Your task to perform on an android device: turn off notifications in google photos Image 0: 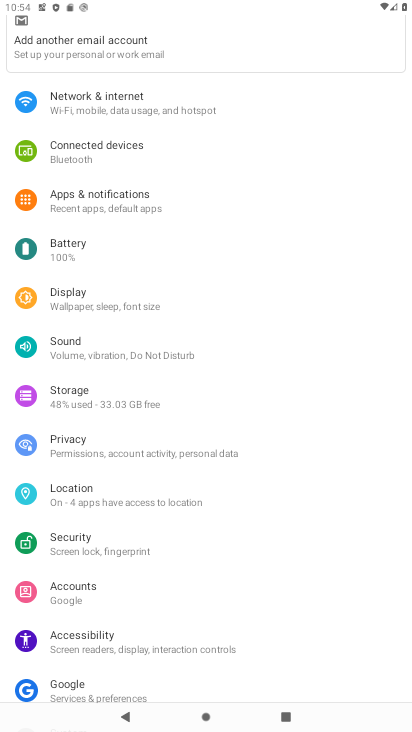
Step 0: press home button
Your task to perform on an android device: turn off notifications in google photos Image 1: 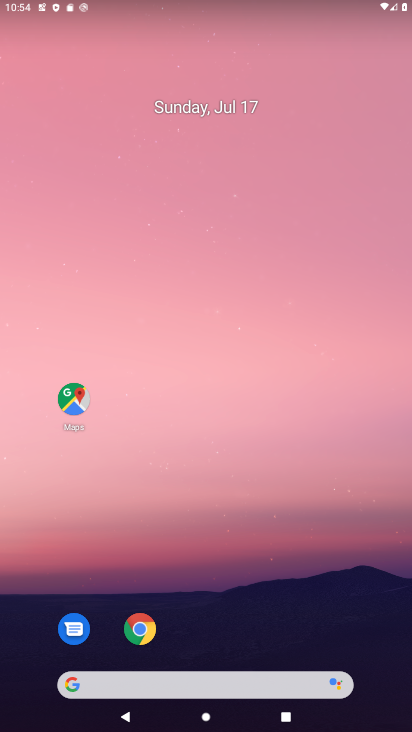
Step 1: drag from (258, 578) to (224, 61)
Your task to perform on an android device: turn off notifications in google photos Image 2: 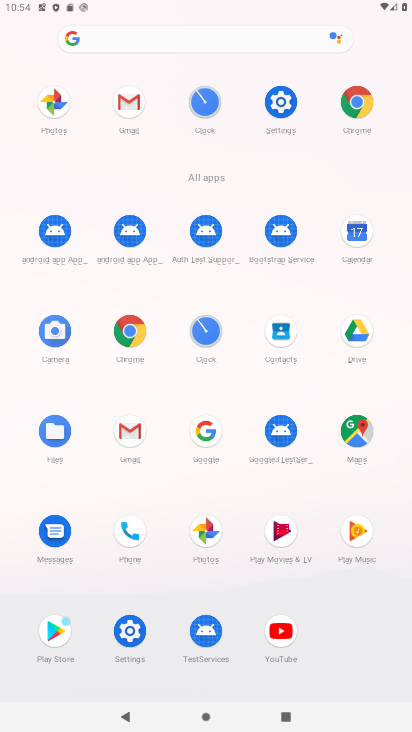
Step 2: click (208, 529)
Your task to perform on an android device: turn off notifications in google photos Image 3: 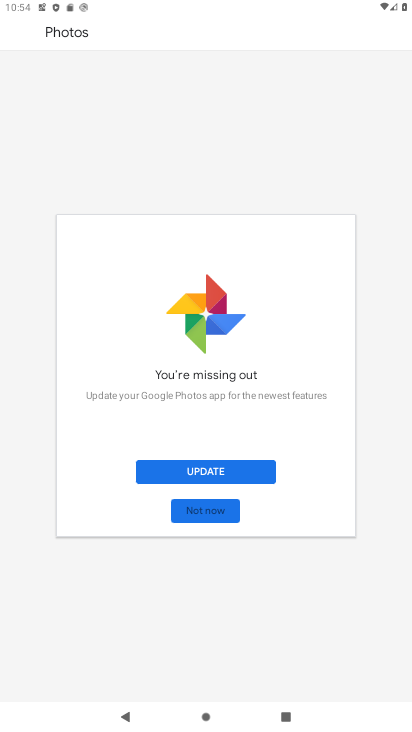
Step 3: click (242, 474)
Your task to perform on an android device: turn off notifications in google photos Image 4: 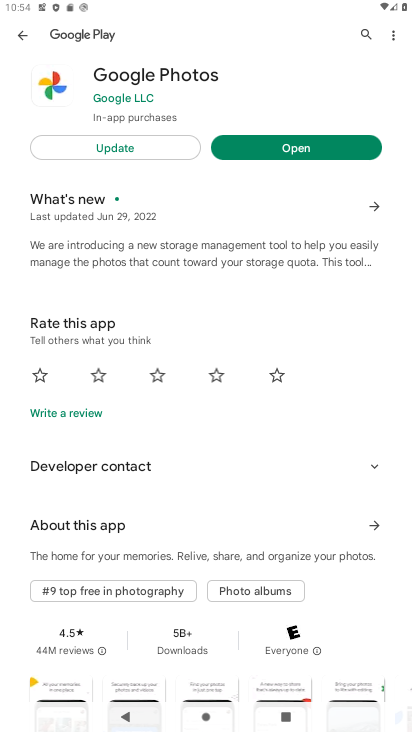
Step 4: click (163, 158)
Your task to perform on an android device: turn off notifications in google photos Image 5: 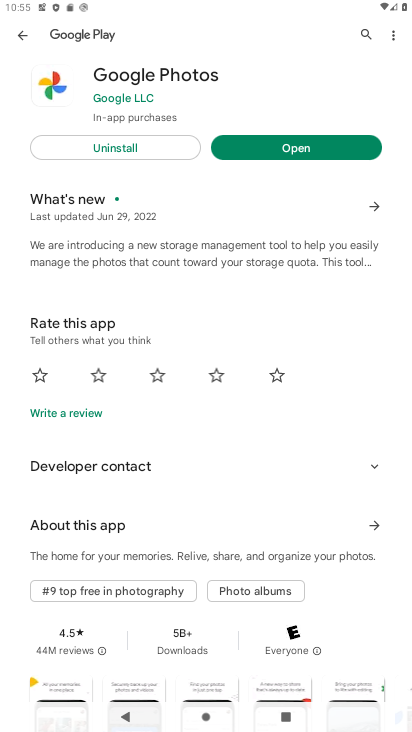
Step 5: click (283, 154)
Your task to perform on an android device: turn off notifications in google photos Image 6: 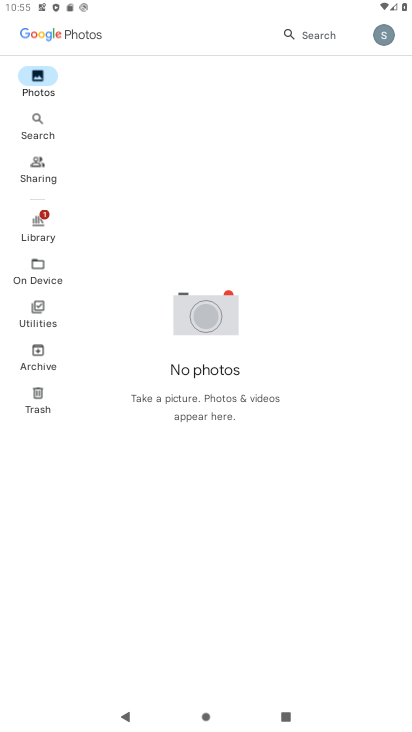
Step 6: click (380, 28)
Your task to perform on an android device: turn off notifications in google photos Image 7: 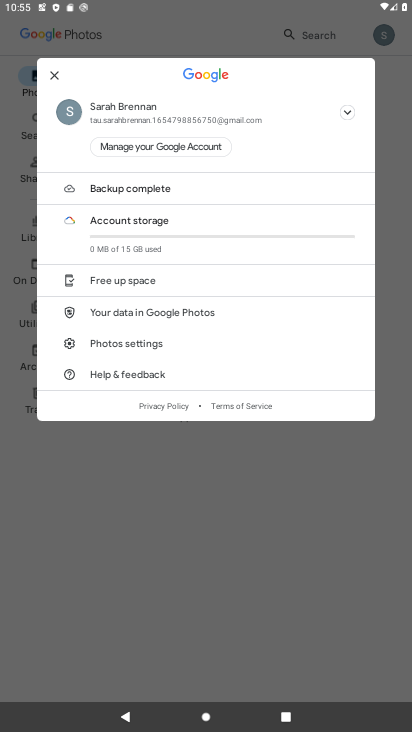
Step 7: click (129, 348)
Your task to perform on an android device: turn off notifications in google photos Image 8: 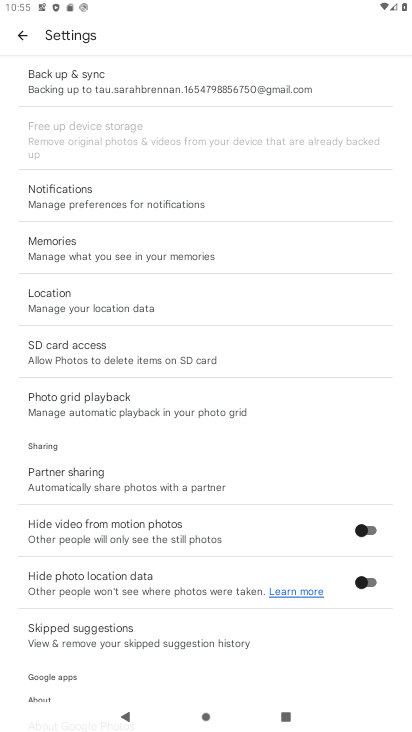
Step 8: click (155, 195)
Your task to perform on an android device: turn off notifications in google photos Image 9: 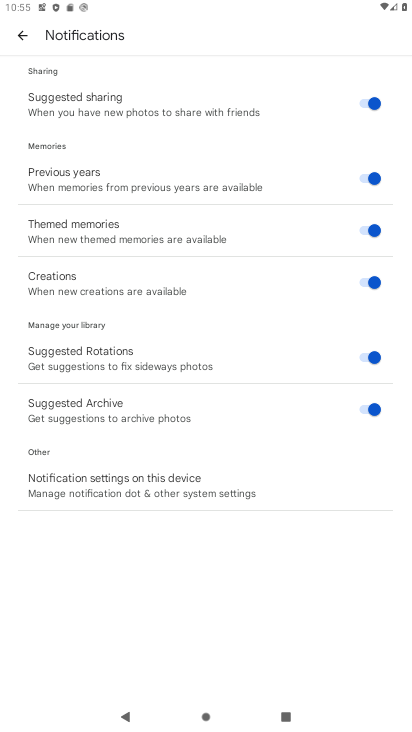
Step 9: click (134, 480)
Your task to perform on an android device: turn off notifications in google photos Image 10: 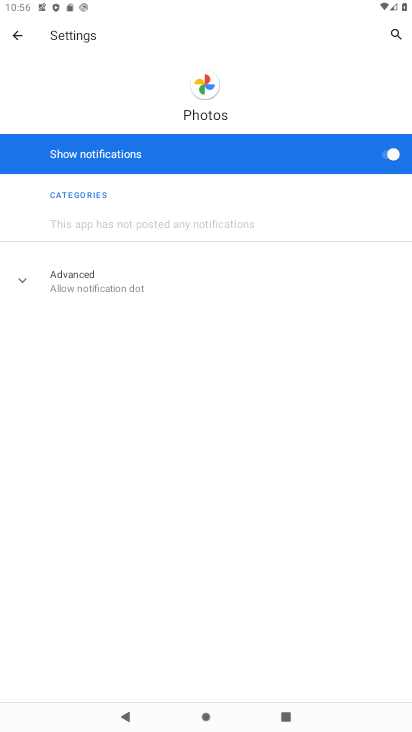
Step 10: click (390, 147)
Your task to perform on an android device: turn off notifications in google photos Image 11: 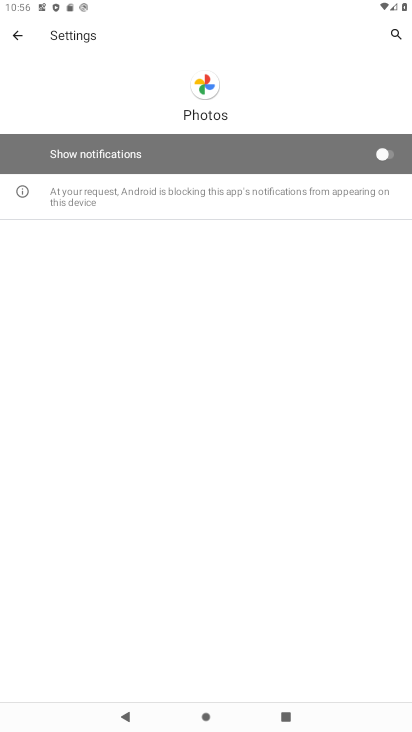
Step 11: task complete